Your task to perform on an android device: Search for Mexican restaurants on Maps Image 0: 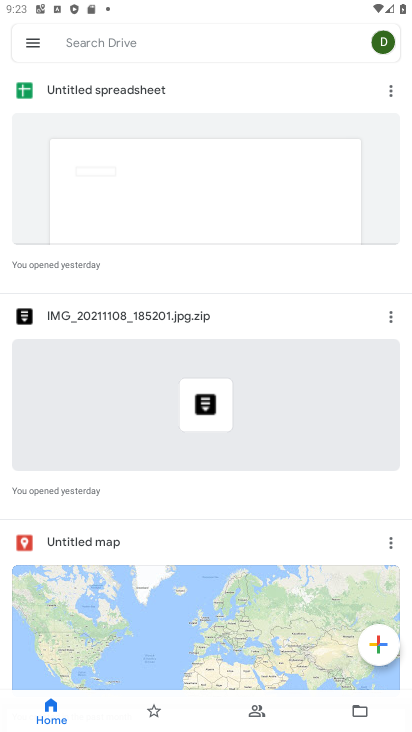
Step 0: press home button
Your task to perform on an android device: Search for Mexican restaurants on Maps Image 1: 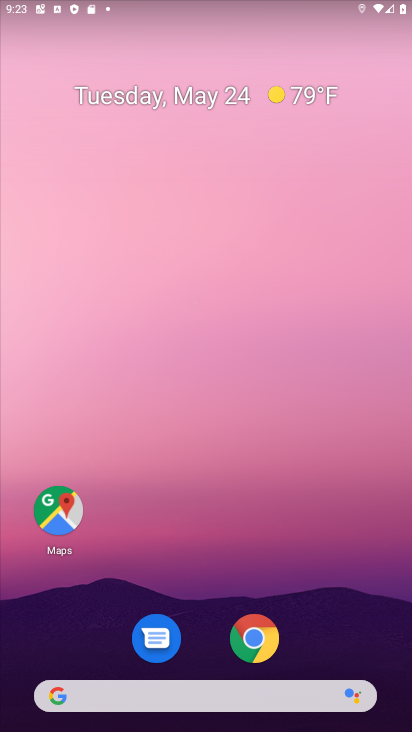
Step 1: click (52, 511)
Your task to perform on an android device: Search for Mexican restaurants on Maps Image 2: 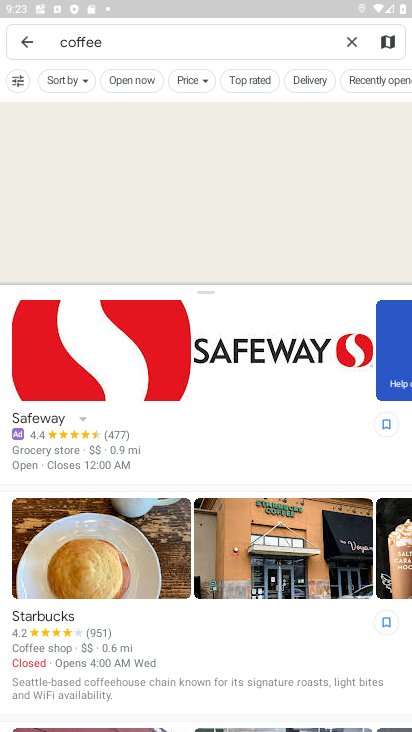
Step 2: click (356, 47)
Your task to perform on an android device: Search for Mexican restaurants on Maps Image 3: 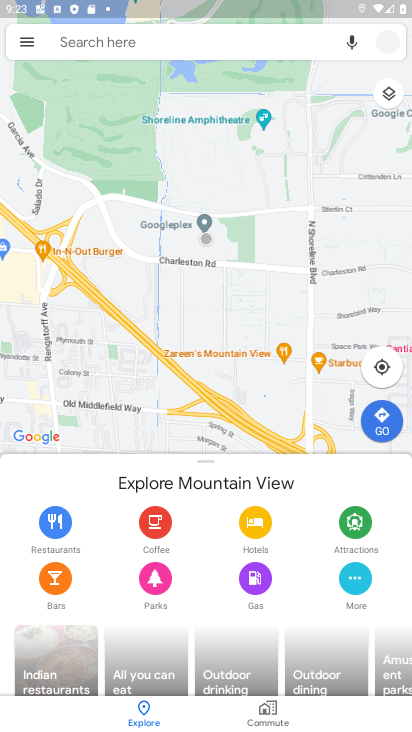
Step 3: click (184, 63)
Your task to perform on an android device: Search for Mexican restaurants on Maps Image 4: 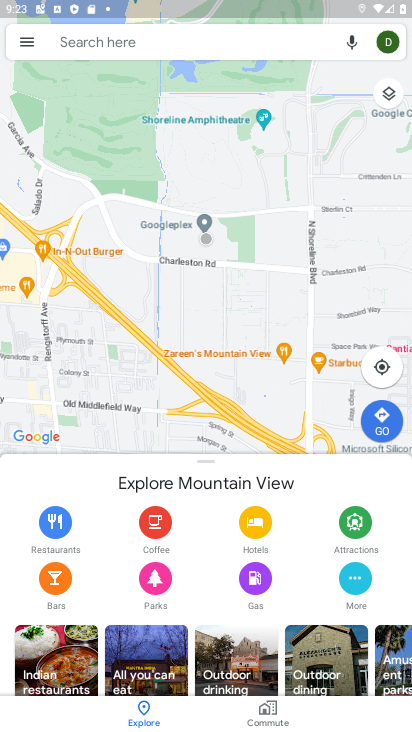
Step 4: click (193, 50)
Your task to perform on an android device: Search for Mexican restaurants on Maps Image 5: 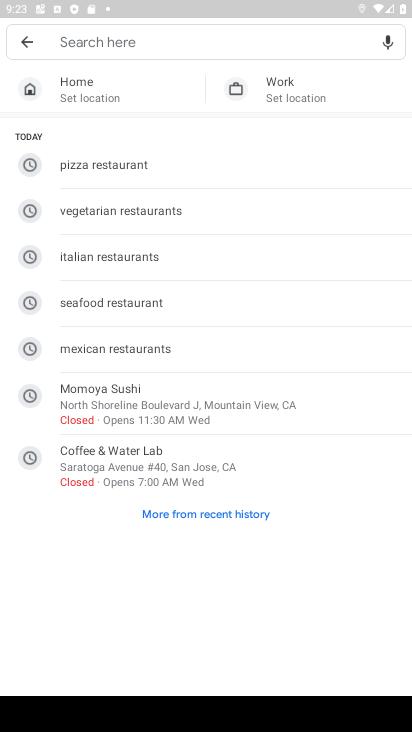
Step 5: click (161, 350)
Your task to perform on an android device: Search for Mexican restaurants on Maps Image 6: 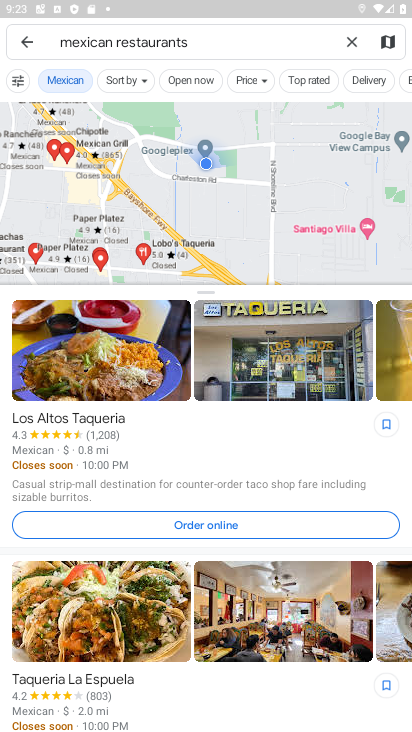
Step 6: task complete